Your task to perform on an android device: clear history in the chrome app Image 0: 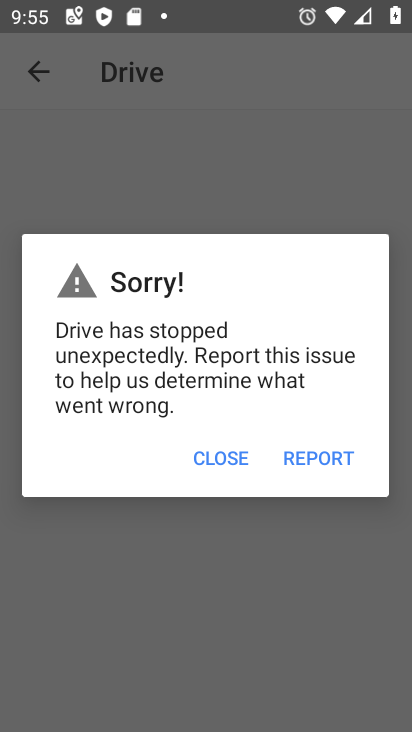
Step 0: press home button
Your task to perform on an android device: clear history in the chrome app Image 1: 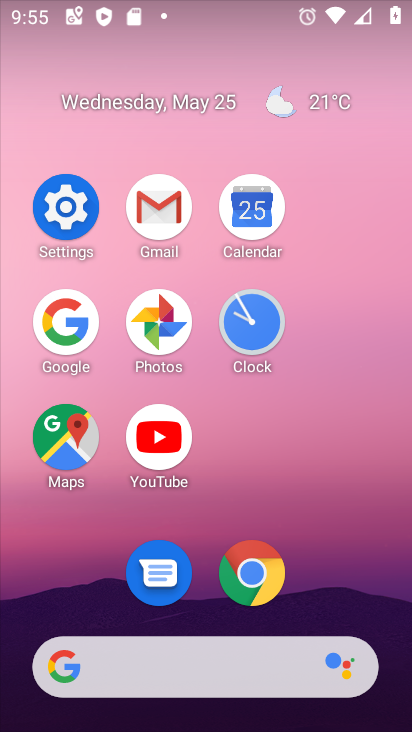
Step 1: click (249, 563)
Your task to perform on an android device: clear history in the chrome app Image 2: 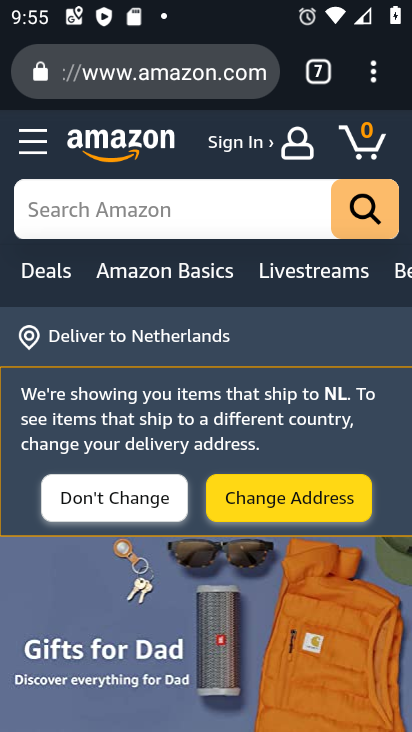
Step 2: click (392, 67)
Your task to perform on an android device: clear history in the chrome app Image 3: 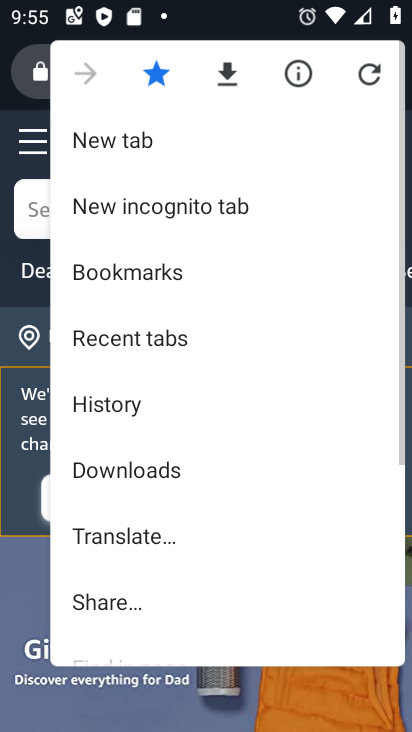
Step 3: click (167, 419)
Your task to perform on an android device: clear history in the chrome app Image 4: 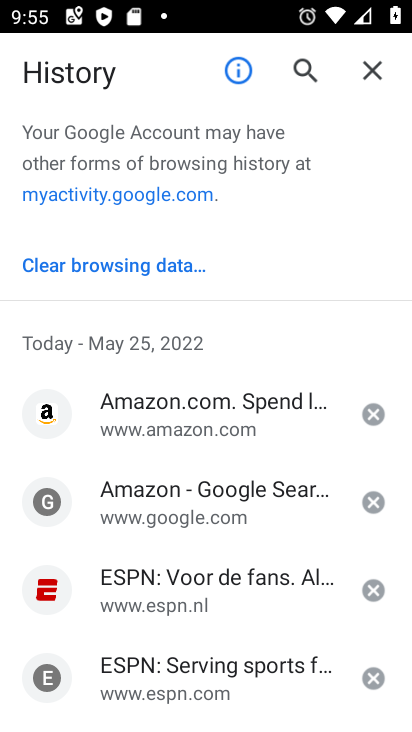
Step 4: click (171, 256)
Your task to perform on an android device: clear history in the chrome app Image 5: 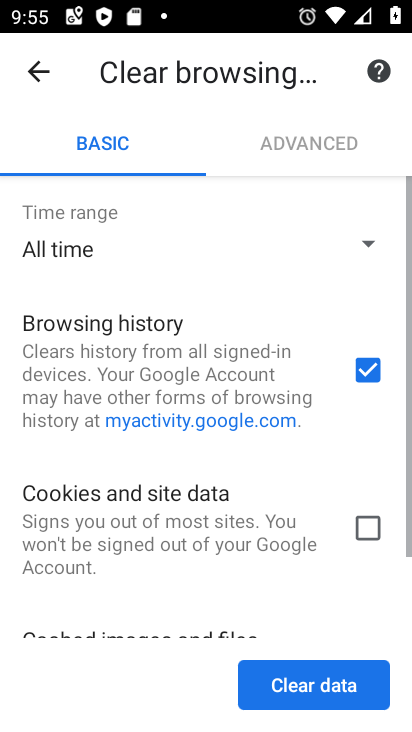
Step 5: click (353, 679)
Your task to perform on an android device: clear history in the chrome app Image 6: 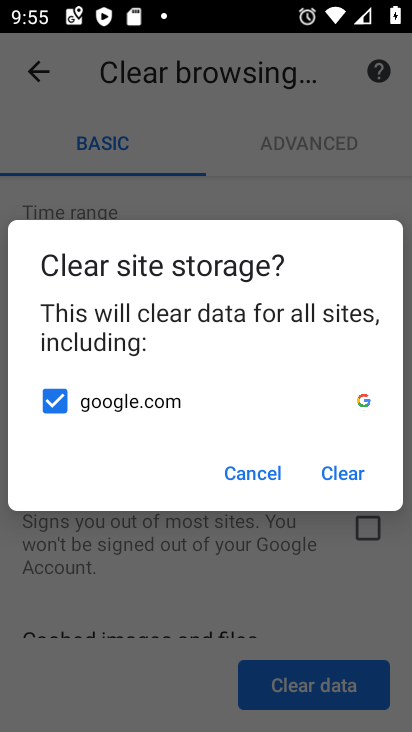
Step 6: click (352, 468)
Your task to perform on an android device: clear history in the chrome app Image 7: 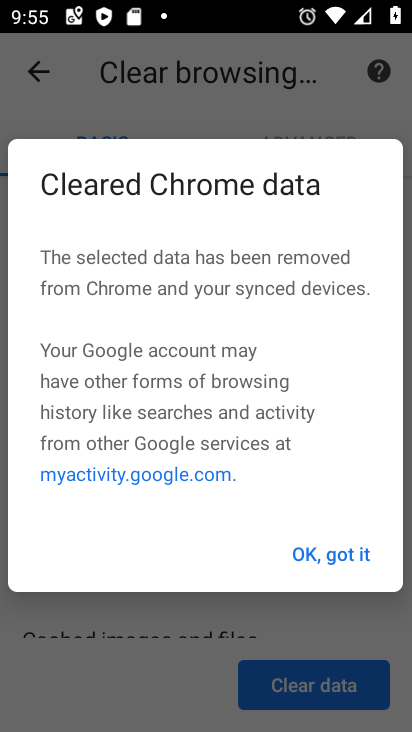
Step 7: click (363, 557)
Your task to perform on an android device: clear history in the chrome app Image 8: 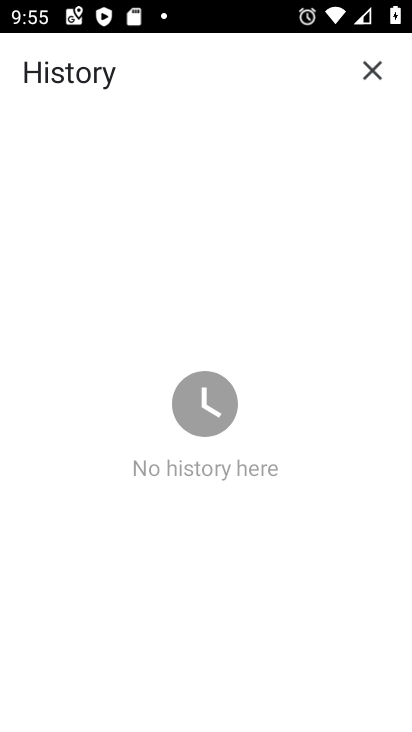
Step 8: task complete